Your task to perform on an android device: Open ESPN.com Image 0: 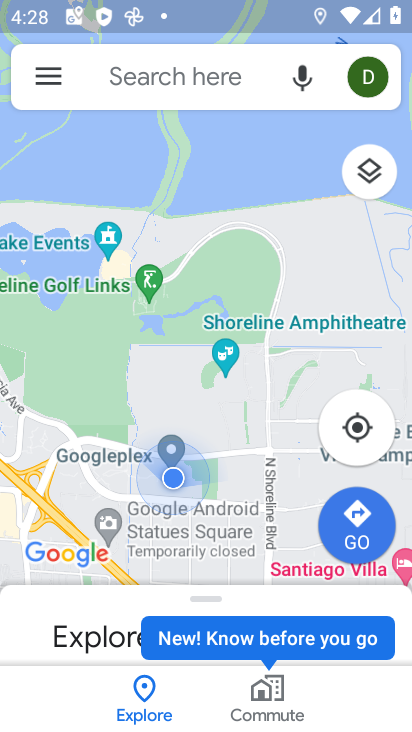
Step 0: press home button
Your task to perform on an android device: Open ESPN.com Image 1: 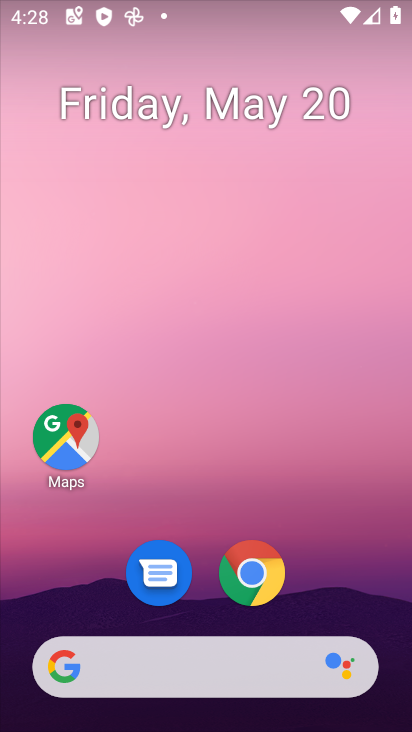
Step 1: click (254, 581)
Your task to perform on an android device: Open ESPN.com Image 2: 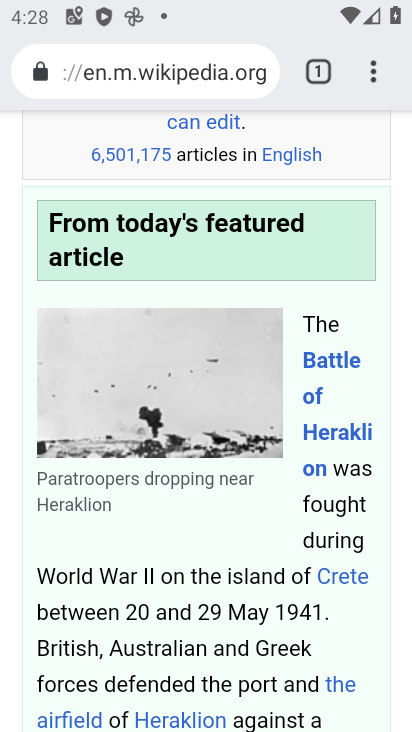
Step 2: click (164, 64)
Your task to perform on an android device: Open ESPN.com Image 3: 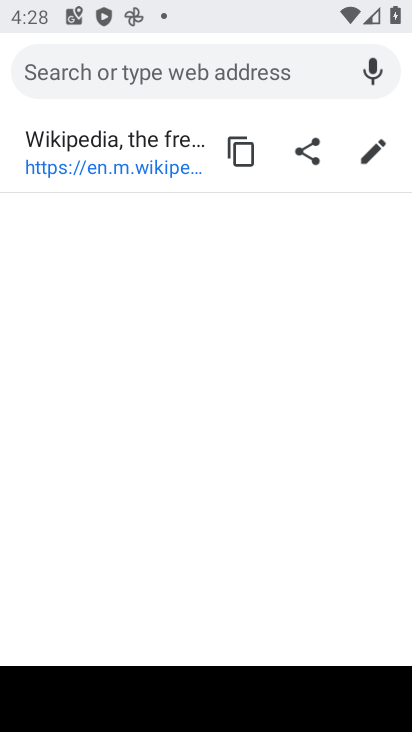
Step 3: type "espn.com"
Your task to perform on an android device: Open ESPN.com Image 4: 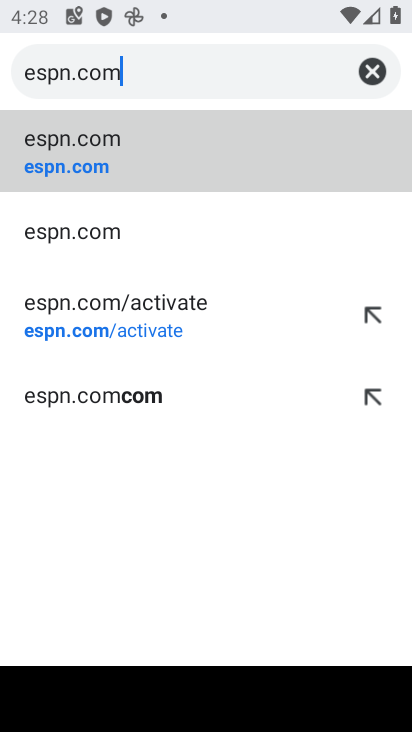
Step 4: click (90, 139)
Your task to perform on an android device: Open ESPN.com Image 5: 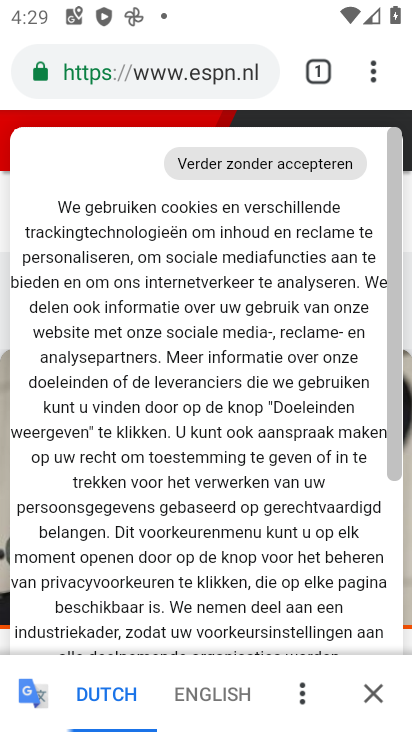
Step 5: click (373, 693)
Your task to perform on an android device: Open ESPN.com Image 6: 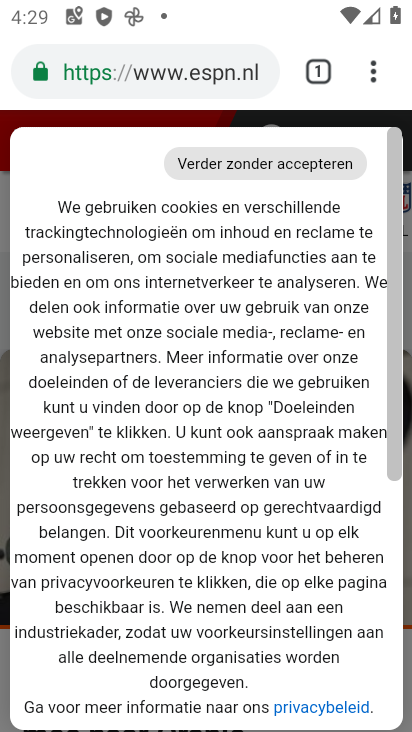
Step 6: drag from (237, 613) to (246, 175)
Your task to perform on an android device: Open ESPN.com Image 7: 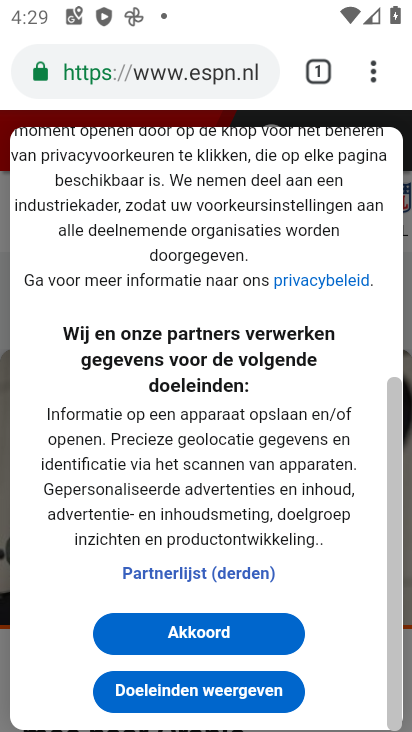
Step 7: click (196, 630)
Your task to perform on an android device: Open ESPN.com Image 8: 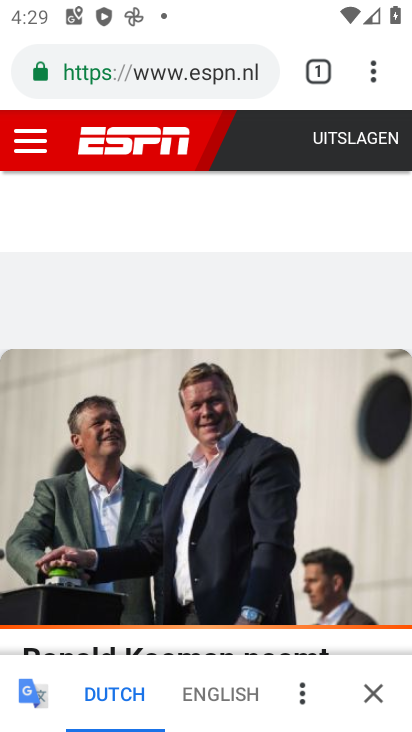
Step 8: drag from (288, 661) to (265, 56)
Your task to perform on an android device: Open ESPN.com Image 9: 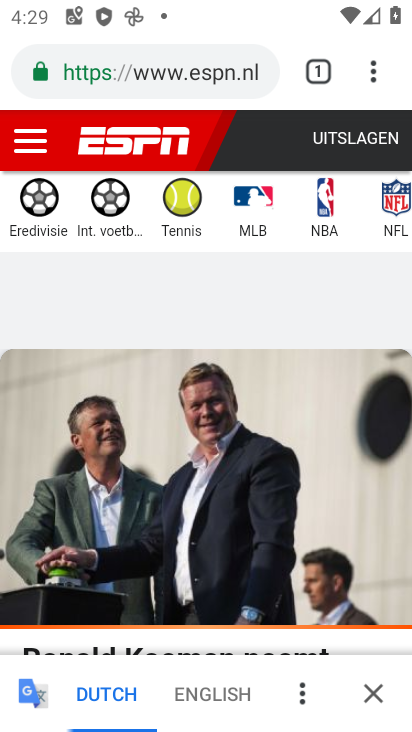
Step 9: click (368, 693)
Your task to perform on an android device: Open ESPN.com Image 10: 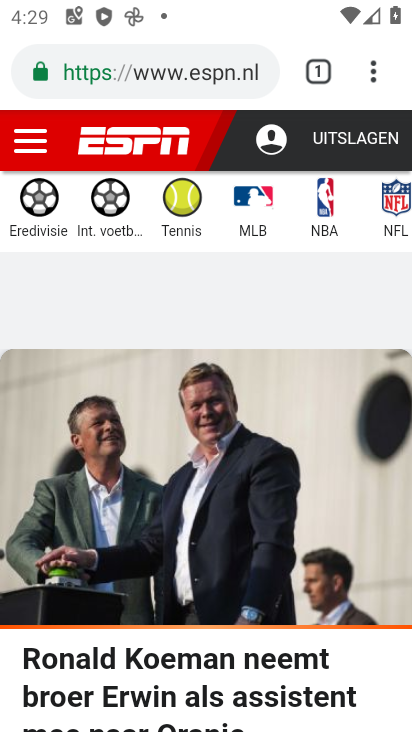
Step 10: task complete